Your task to perform on an android device: turn off picture-in-picture Image 0: 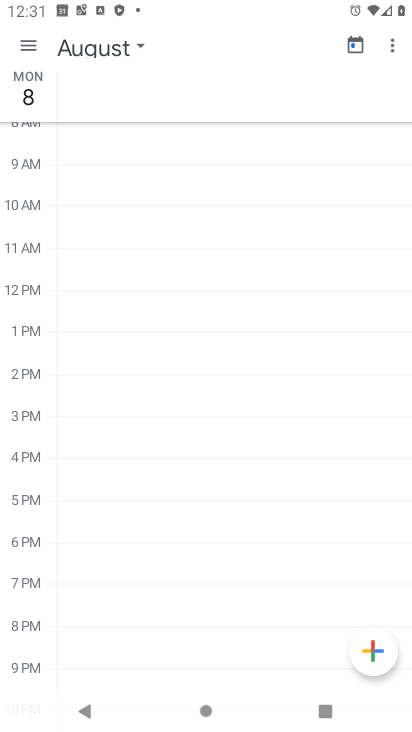
Step 0: press home button
Your task to perform on an android device: turn off picture-in-picture Image 1: 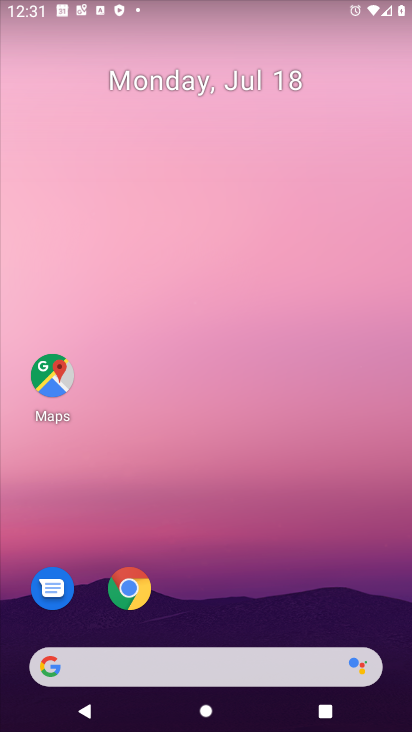
Step 1: drag from (241, 619) to (192, 210)
Your task to perform on an android device: turn off picture-in-picture Image 2: 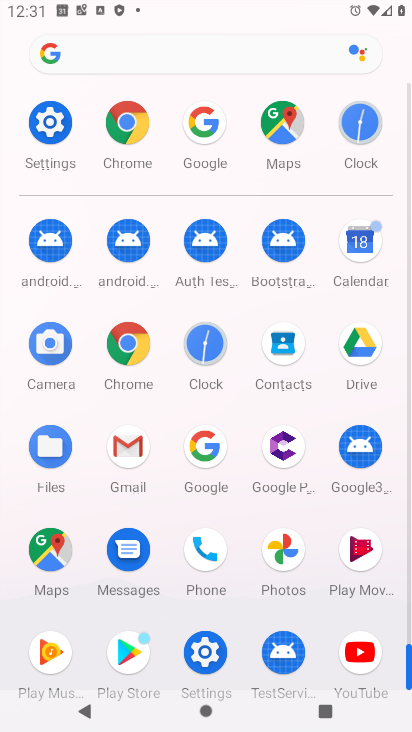
Step 2: click (57, 135)
Your task to perform on an android device: turn off picture-in-picture Image 3: 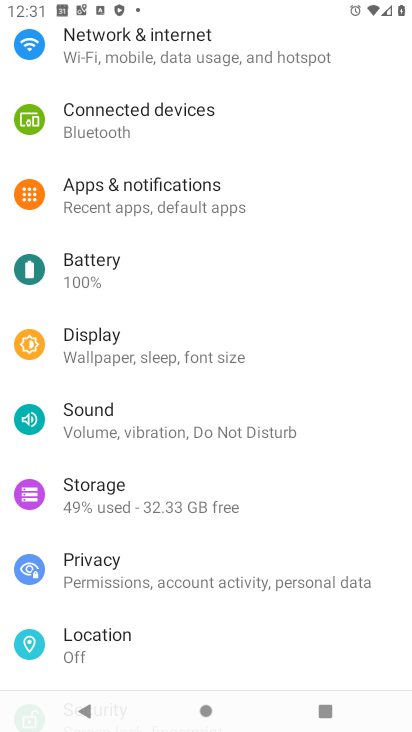
Step 3: click (137, 201)
Your task to perform on an android device: turn off picture-in-picture Image 4: 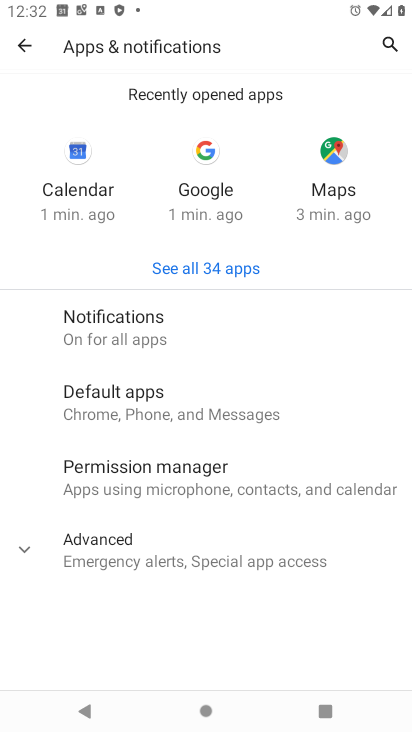
Step 4: click (232, 540)
Your task to perform on an android device: turn off picture-in-picture Image 5: 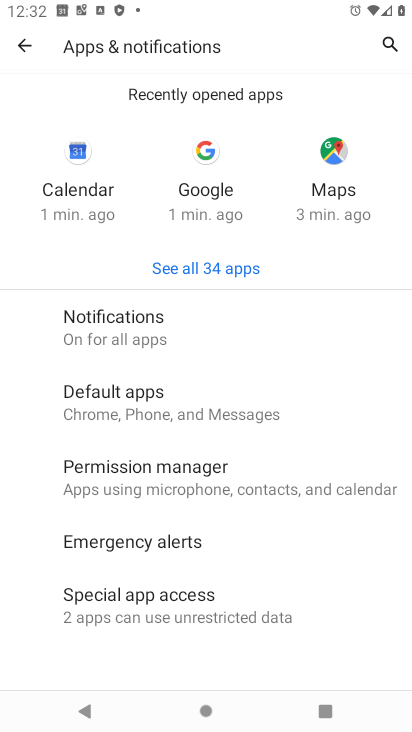
Step 5: click (197, 616)
Your task to perform on an android device: turn off picture-in-picture Image 6: 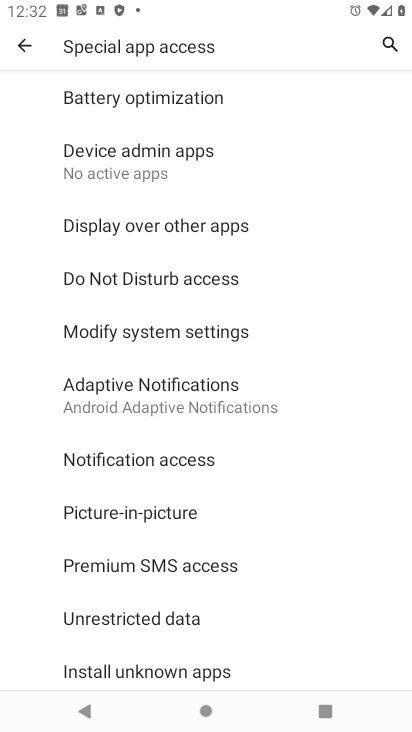
Step 6: click (185, 507)
Your task to perform on an android device: turn off picture-in-picture Image 7: 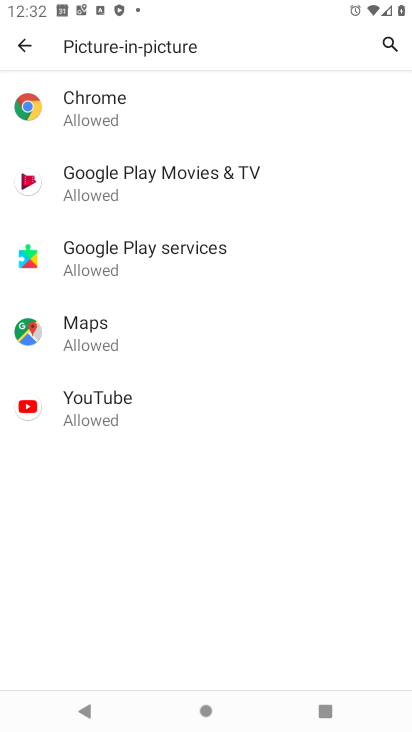
Step 7: click (94, 118)
Your task to perform on an android device: turn off picture-in-picture Image 8: 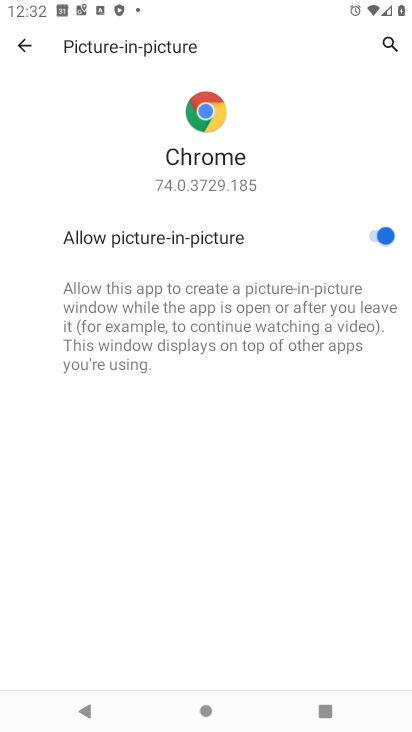
Step 8: click (140, 239)
Your task to perform on an android device: turn off picture-in-picture Image 9: 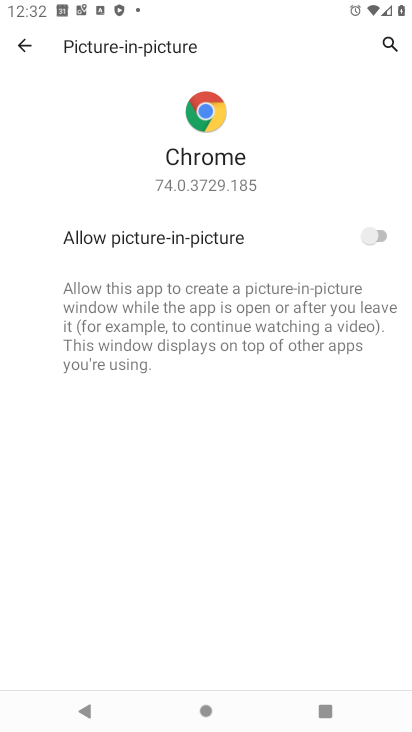
Step 9: task complete